Your task to perform on an android device: Open the calendar and show me this week's events? Image 0: 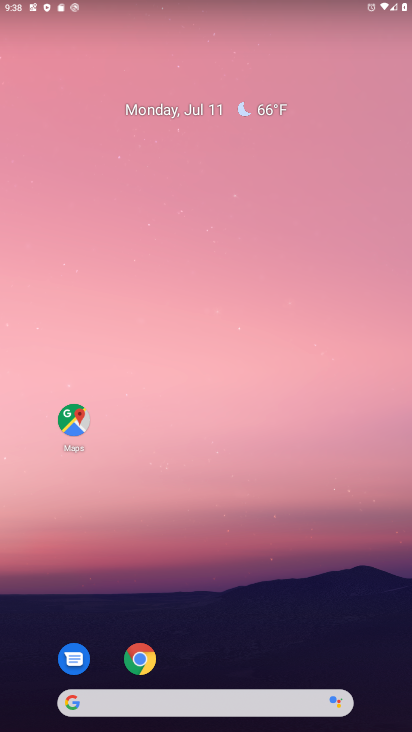
Step 0: drag from (328, 628) to (331, 172)
Your task to perform on an android device: Open the calendar and show me this week's events? Image 1: 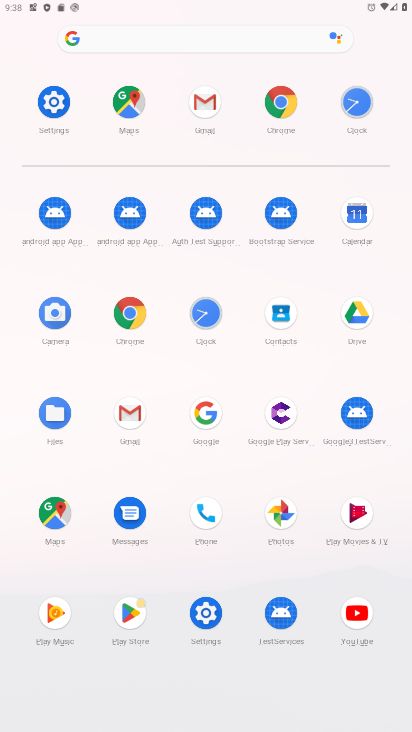
Step 1: click (355, 221)
Your task to perform on an android device: Open the calendar and show me this week's events? Image 2: 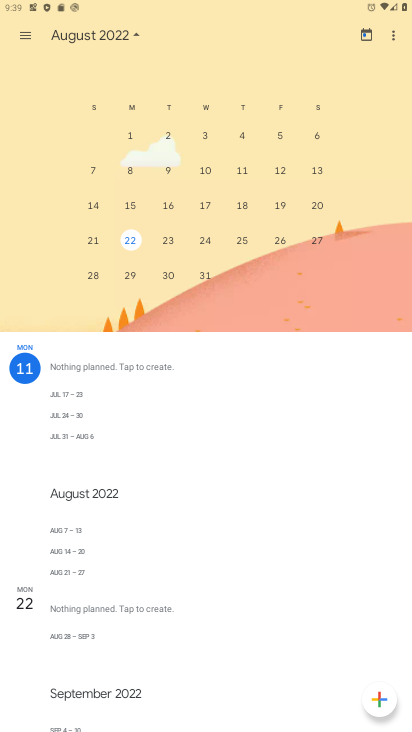
Step 2: task complete